Your task to perform on an android device: turn off airplane mode Image 0: 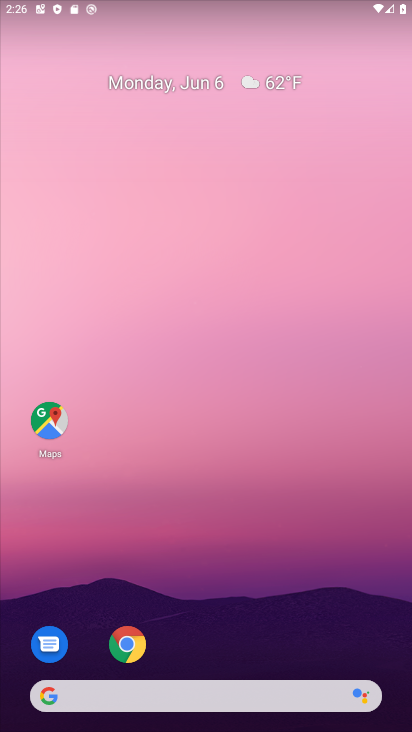
Step 0: drag from (298, 632) to (317, 0)
Your task to perform on an android device: turn off airplane mode Image 1: 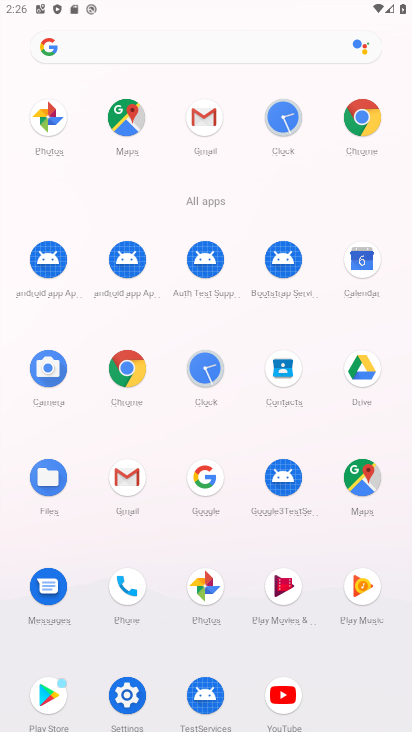
Step 1: click (119, 705)
Your task to perform on an android device: turn off airplane mode Image 2: 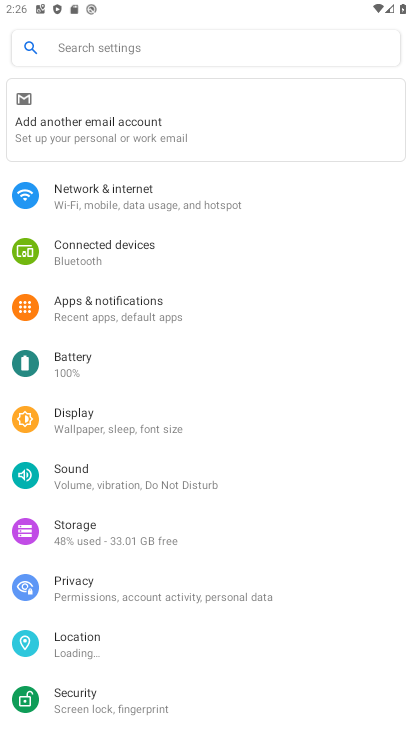
Step 2: click (95, 207)
Your task to perform on an android device: turn off airplane mode Image 3: 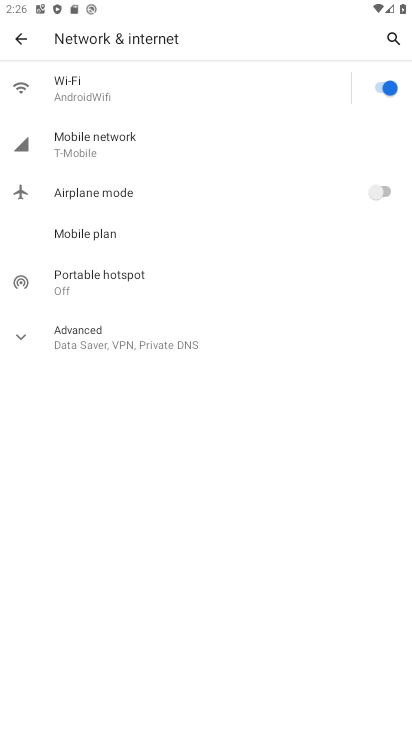
Step 3: task complete